Your task to perform on an android device: Is it going to rain tomorrow? Image 0: 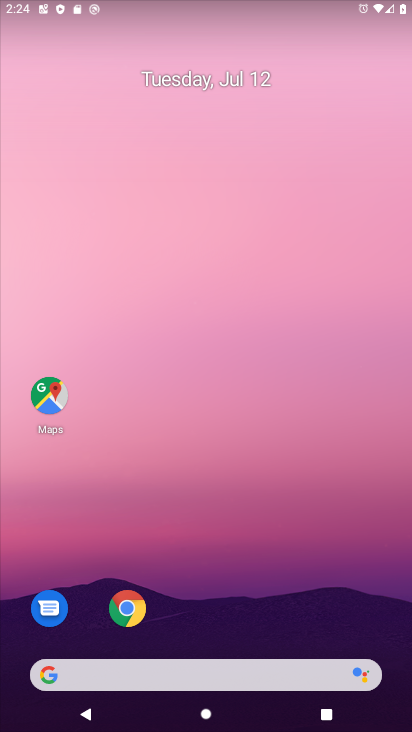
Step 0: click (132, 605)
Your task to perform on an android device: Is it going to rain tomorrow? Image 1: 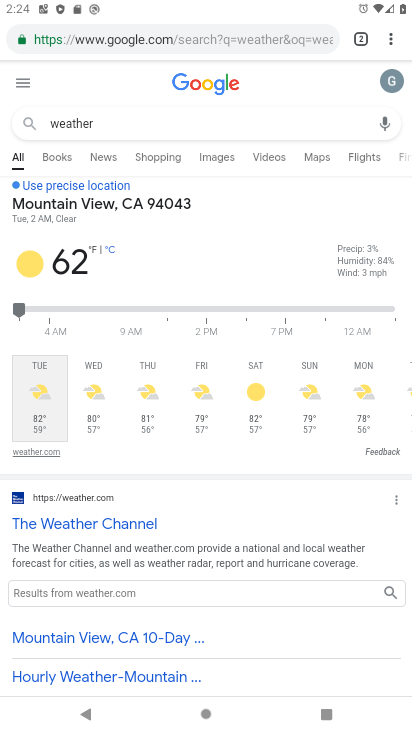
Step 1: click (99, 380)
Your task to perform on an android device: Is it going to rain tomorrow? Image 2: 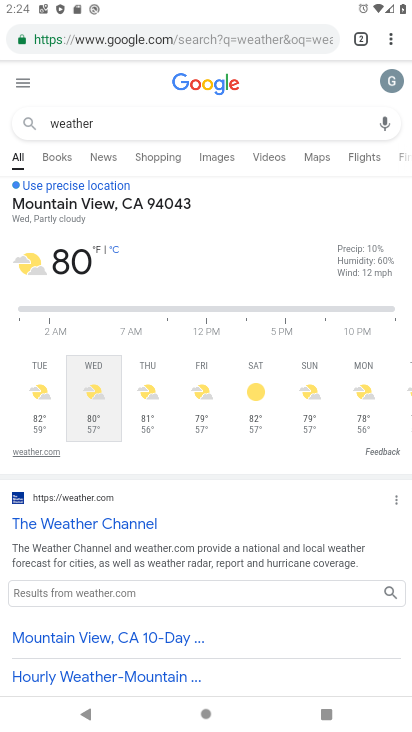
Step 2: task complete